Your task to perform on an android device: stop showing notifications on the lock screen Image 0: 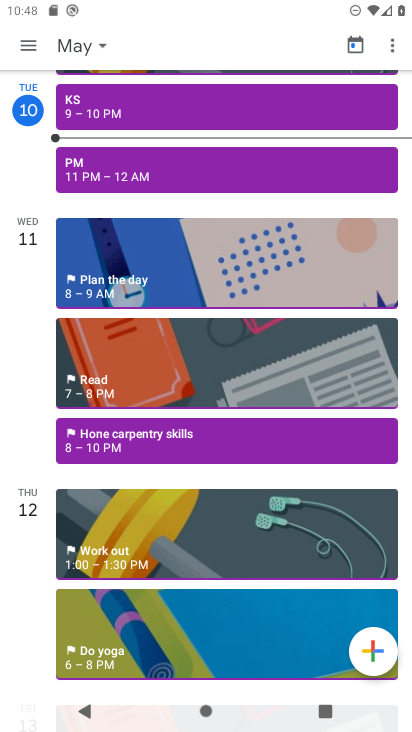
Step 0: press home button
Your task to perform on an android device: stop showing notifications on the lock screen Image 1: 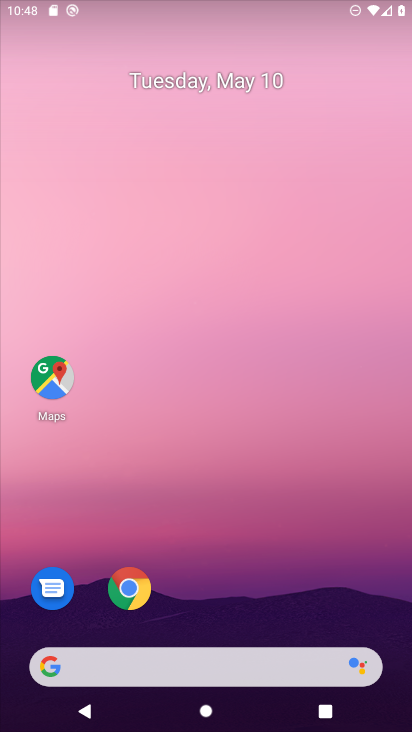
Step 1: drag from (283, 583) to (205, 86)
Your task to perform on an android device: stop showing notifications on the lock screen Image 2: 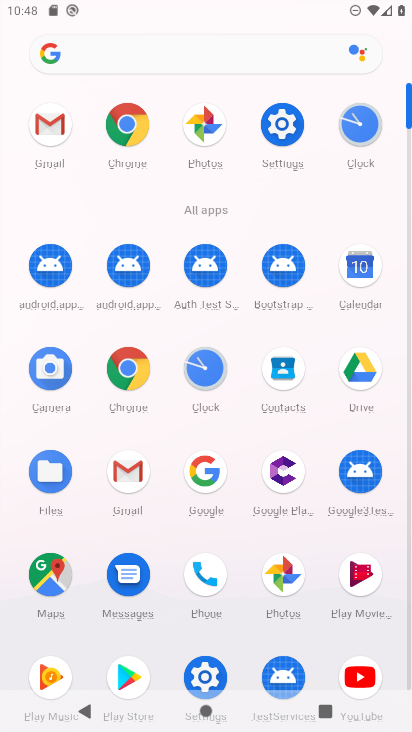
Step 2: click (285, 127)
Your task to perform on an android device: stop showing notifications on the lock screen Image 3: 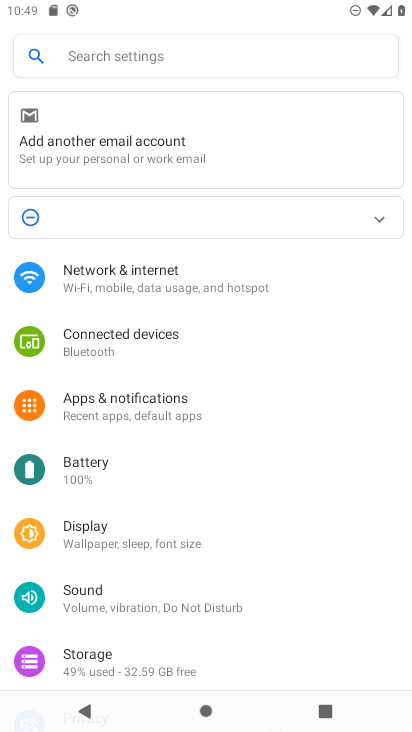
Step 3: click (151, 416)
Your task to perform on an android device: stop showing notifications on the lock screen Image 4: 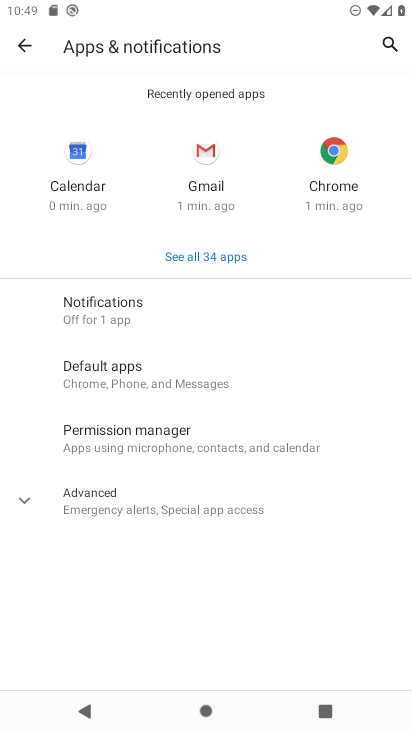
Step 4: click (144, 328)
Your task to perform on an android device: stop showing notifications on the lock screen Image 5: 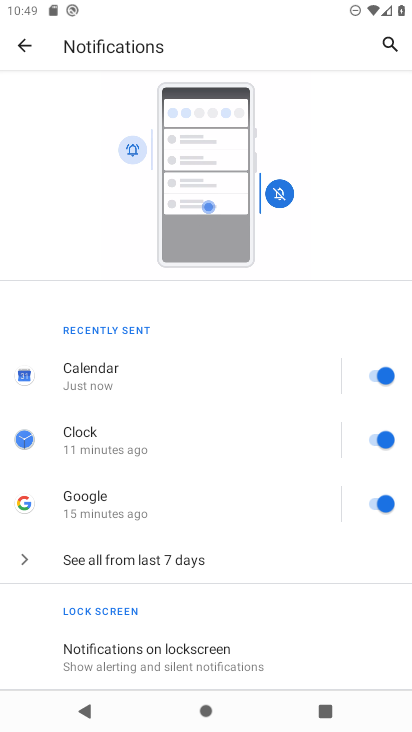
Step 5: click (203, 644)
Your task to perform on an android device: stop showing notifications on the lock screen Image 6: 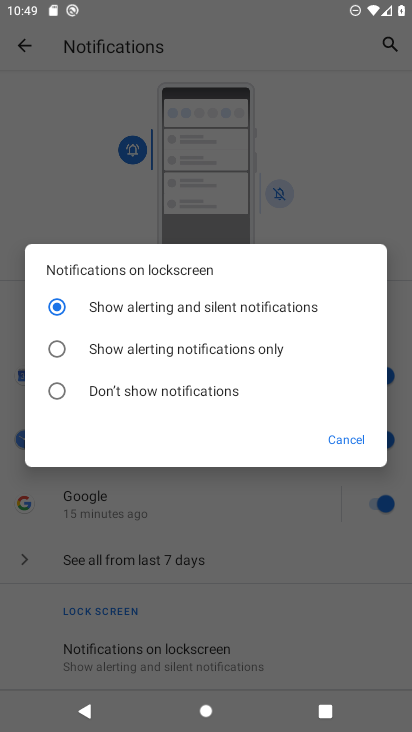
Step 6: click (221, 397)
Your task to perform on an android device: stop showing notifications on the lock screen Image 7: 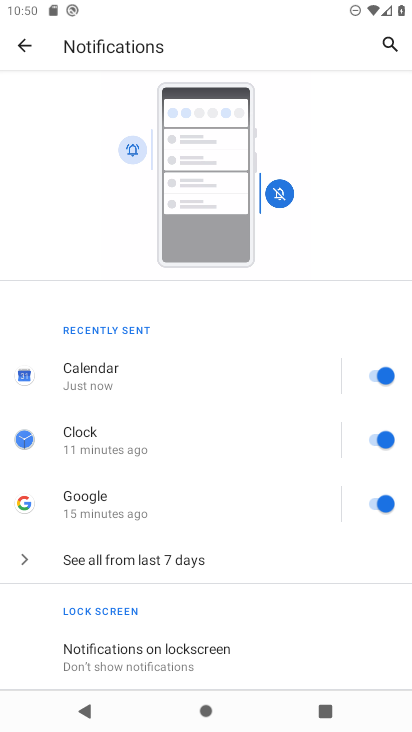
Step 7: task complete